Your task to perform on an android device: Go to notification settings Image 0: 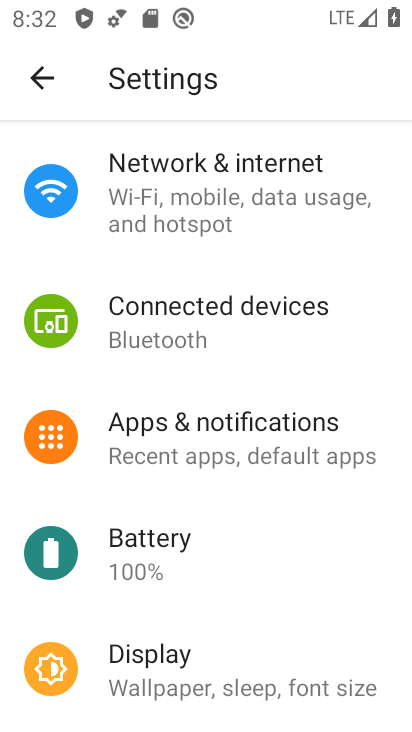
Step 0: click (227, 443)
Your task to perform on an android device: Go to notification settings Image 1: 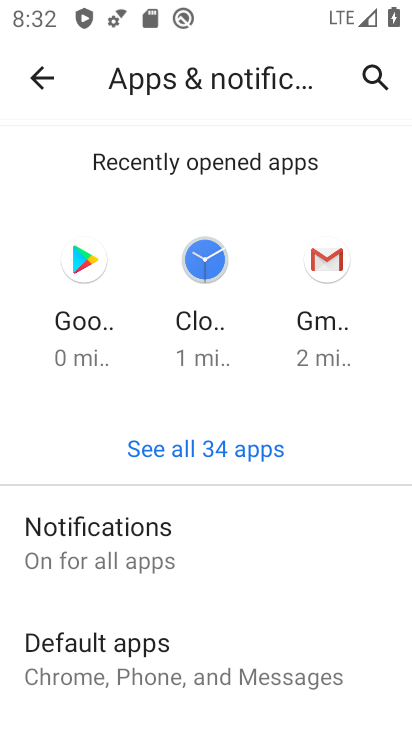
Step 1: click (151, 550)
Your task to perform on an android device: Go to notification settings Image 2: 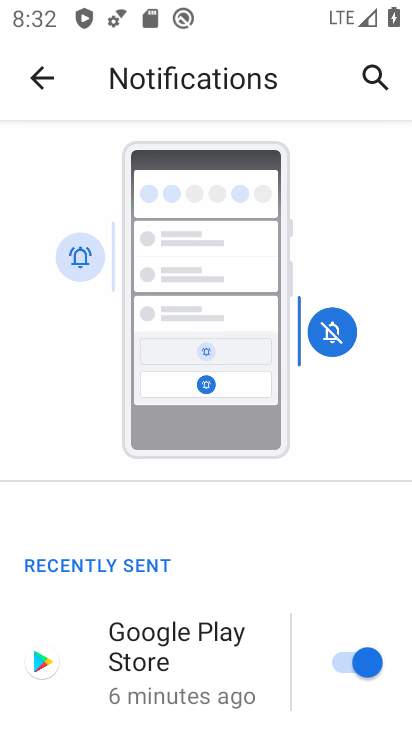
Step 2: drag from (193, 678) to (371, 83)
Your task to perform on an android device: Go to notification settings Image 3: 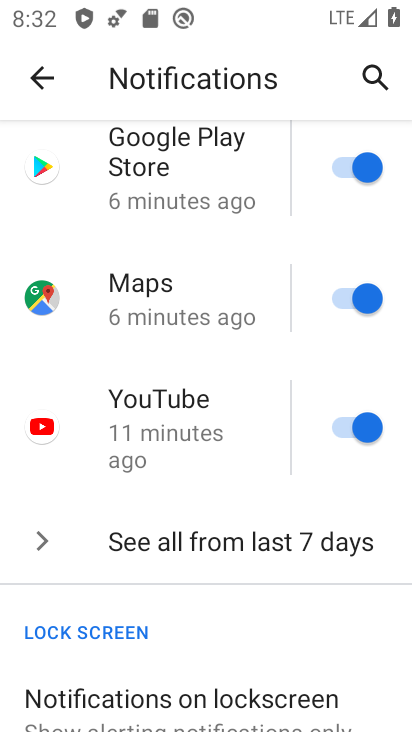
Step 3: drag from (213, 648) to (411, 135)
Your task to perform on an android device: Go to notification settings Image 4: 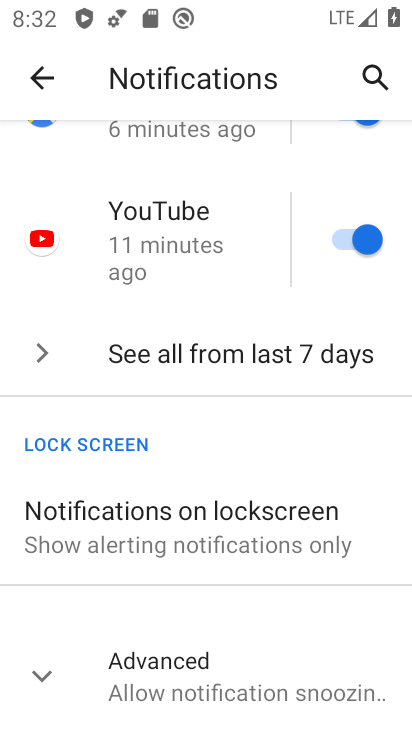
Step 4: click (181, 670)
Your task to perform on an android device: Go to notification settings Image 5: 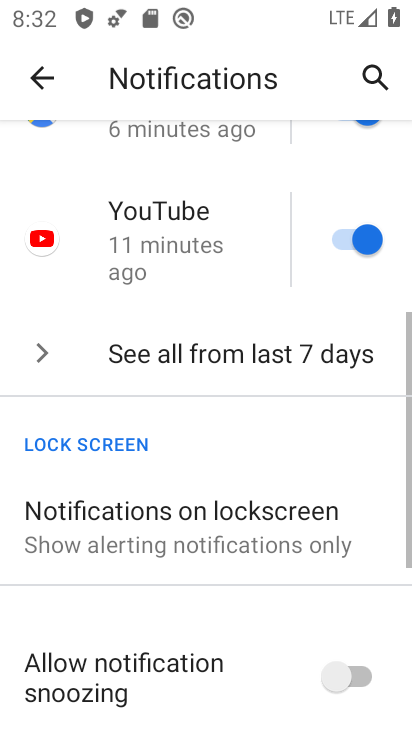
Step 5: drag from (220, 655) to (406, 10)
Your task to perform on an android device: Go to notification settings Image 6: 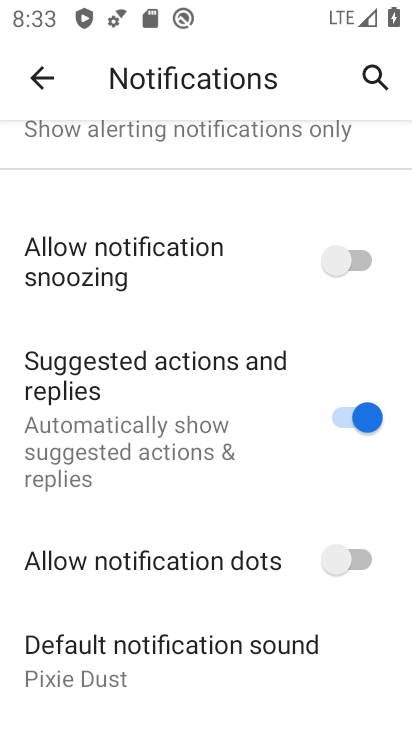
Step 6: click (345, 263)
Your task to perform on an android device: Go to notification settings Image 7: 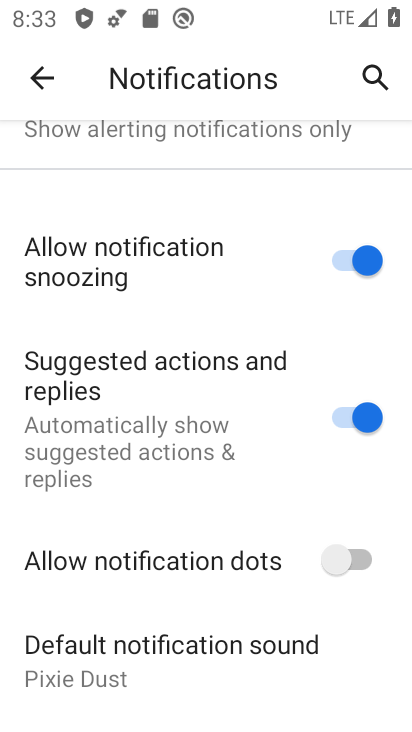
Step 7: task complete